Your task to perform on an android device: turn pop-ups off in chrome Image 0: 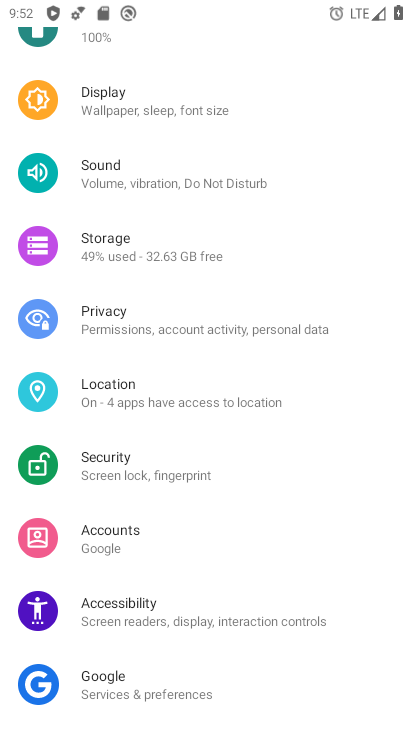
Step 0: press home button
Your task to perform on an android device: turn pop-ups off in chrome Image 1: 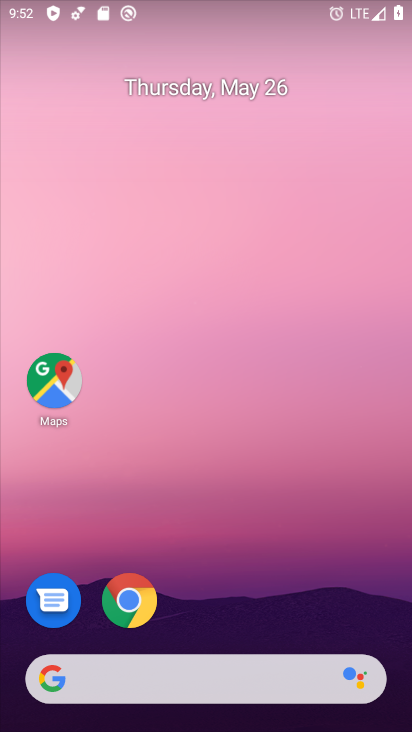
Step 1: click (134, 602)
Your task to perform on an android device: turn pop-ups off in chrome Image 2: 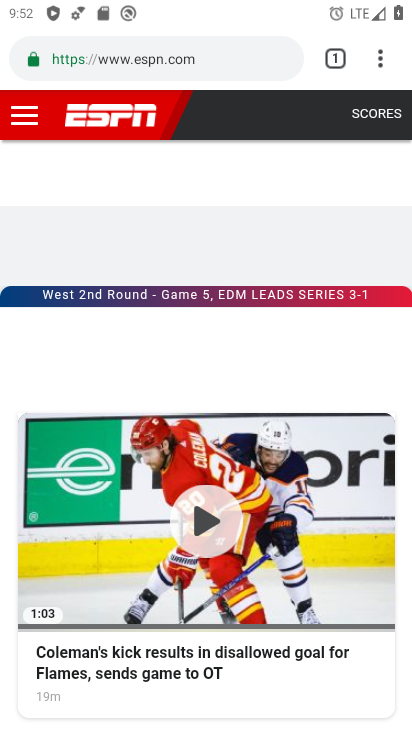
Step 2: click (376, 43)
Your task to perform on an android device: turn pop-ups off in chrome Image 3: 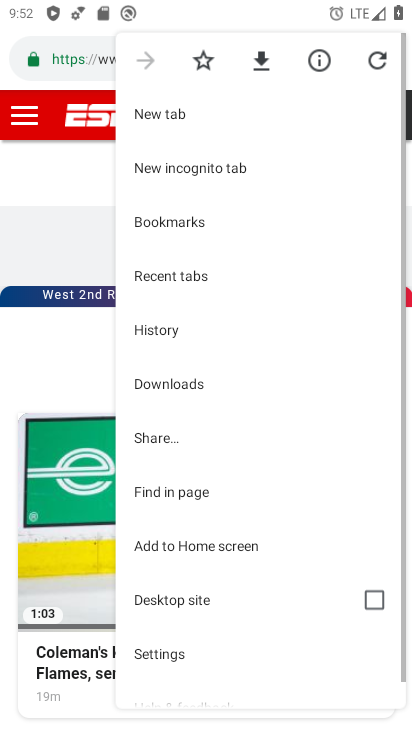
Step 3: drag from (248, 585) to (328, 184)
Your task to perform on an android device: turn pop-ups off in chrome Image 4: 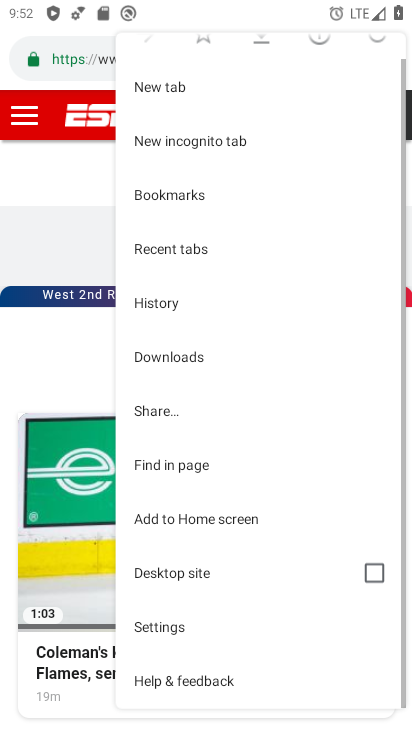
Step 4: click (176, 632)
Your task to perform on an android device: turn pop-ups off in chrome Image 5: 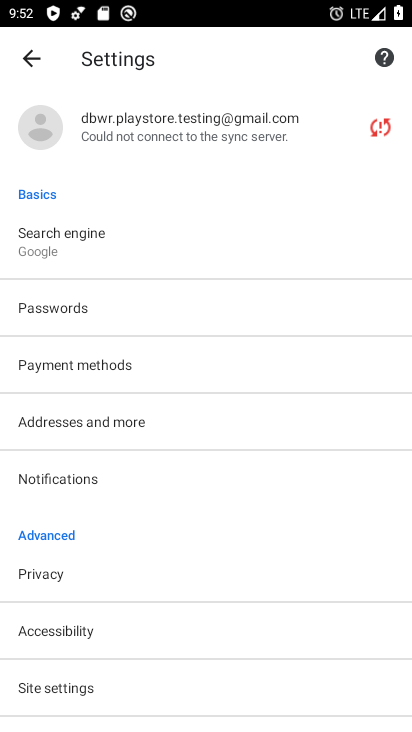
Step 5: drag from (153, 605) to (195, 180)
Your task to perform on an android device: turn pop-ups off in chrome Image 6: 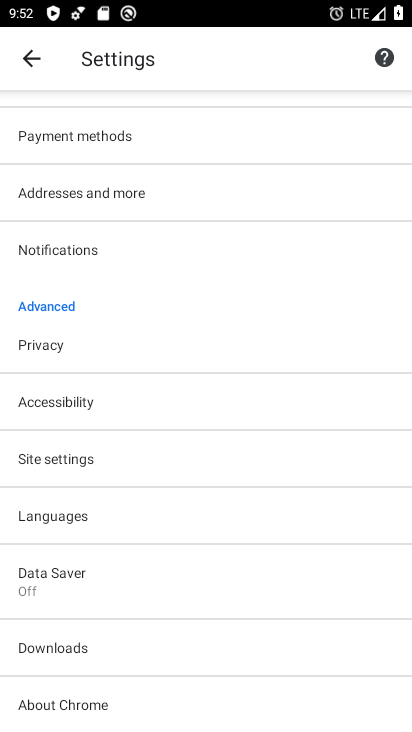
Step 6: click (96, 456)
Your task to perform on an android device: turn pop-ups off in chrome Image 7: 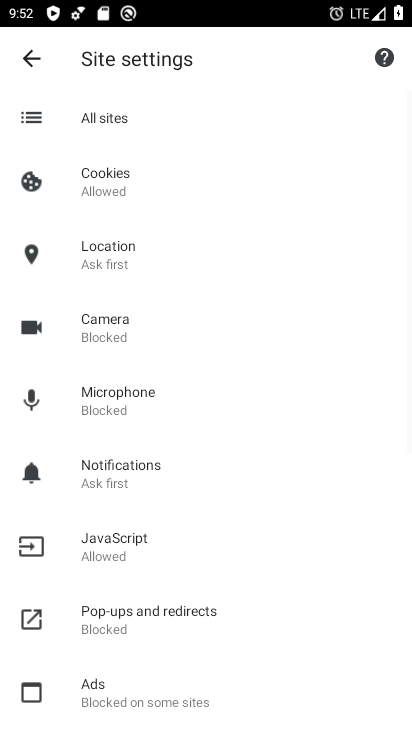
Step 7: click (125, 627)
Your task to perform on an android device: turn pop-ups off in chrome Image 8: 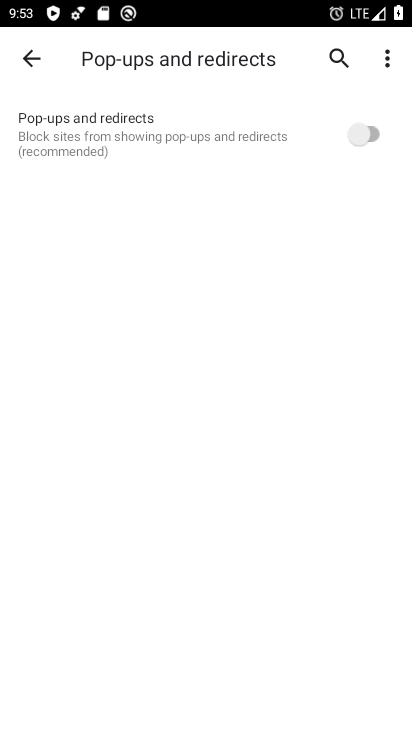
Step 8: task complete